Your task to perform on an android device: change the clock style Image 0: 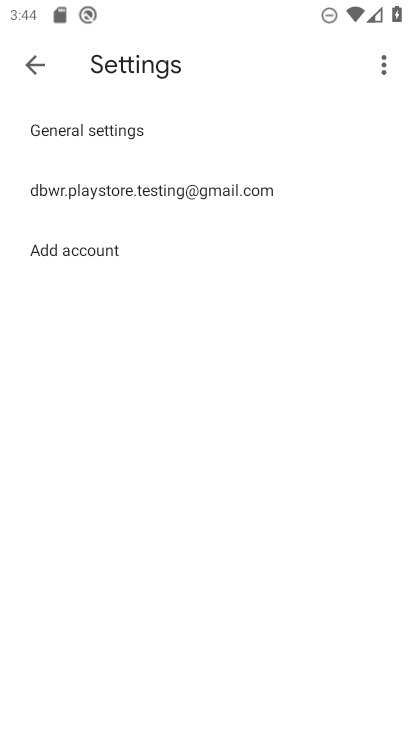
Step 0: press home button
Your task to perform on an android device: change the clock style Image 1: 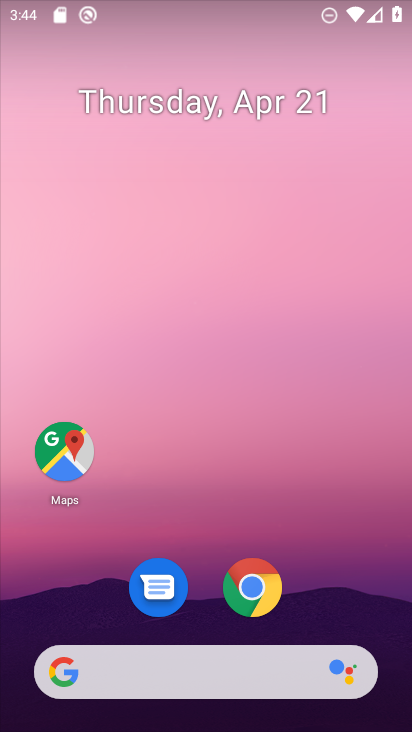
Step 1: drag from (400, 639) to (408, 4)
Your task to perform on an android device: change the clock style Image 2: 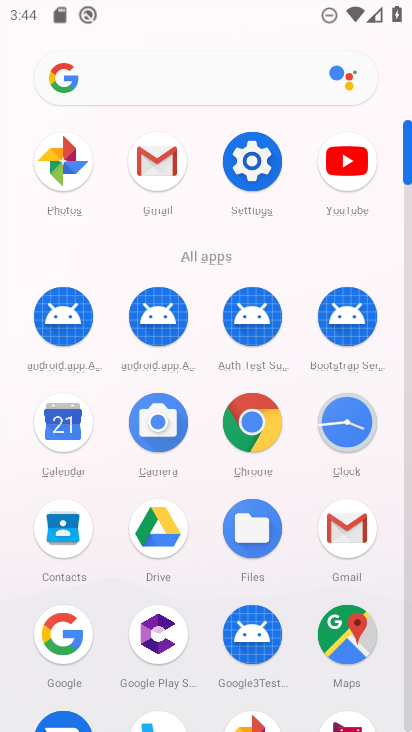
Step 2: click (345, 430)
Your task to perform on an android device: change the clock style Image 3: 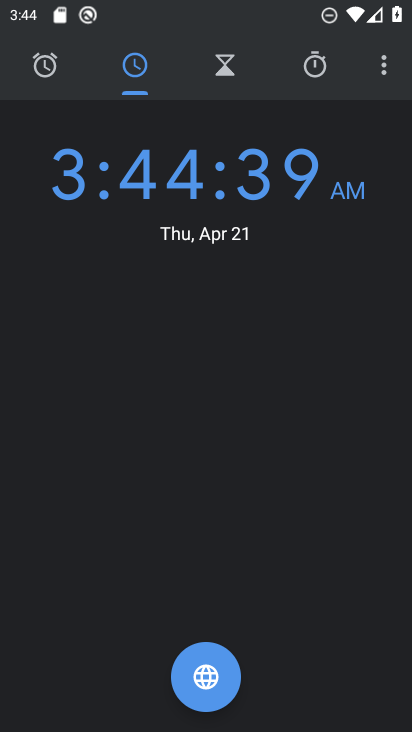
Step 3: click (381, 69)
Your task to perform on an android device: change the clock style Image 4: 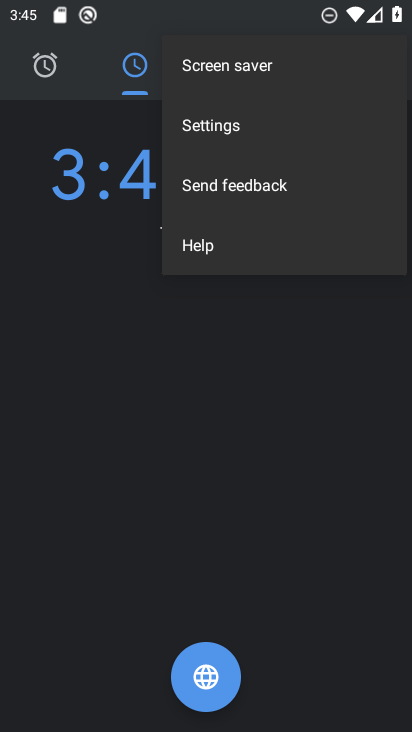
Step 4: click (220, 129)
Your task to perform on an android device: change the clock style Image 5: 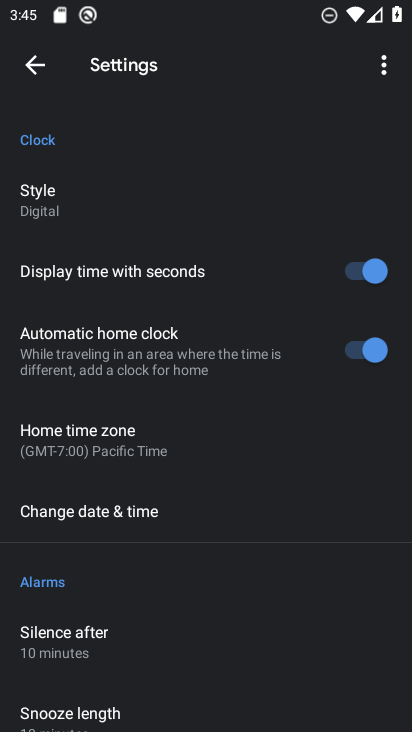
Step 5: click (56, 216)
Your task to perform on an android device: change the clock style Image 6: 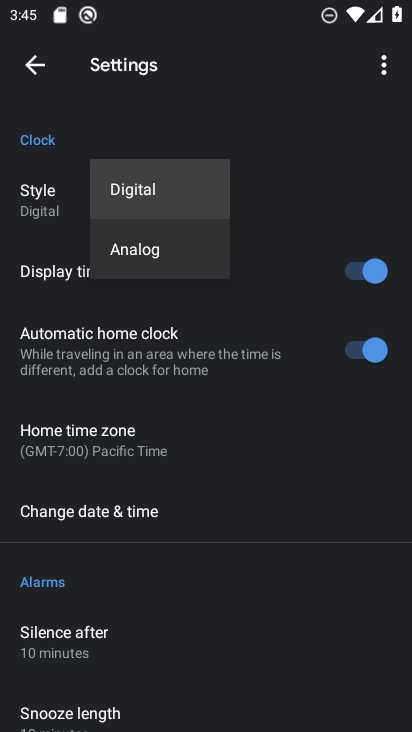
Step 6: click (127, 244)
Your task to perform on an android device: change the clock style Image 7: 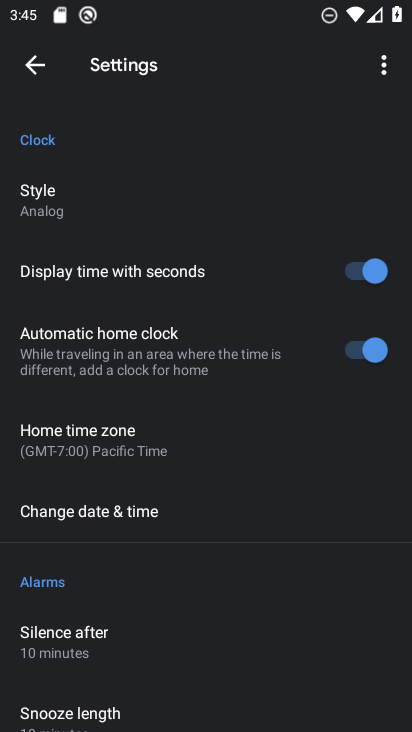
Step 7: task complete